Your task to perform on an android device: Open sound settings Image 0: 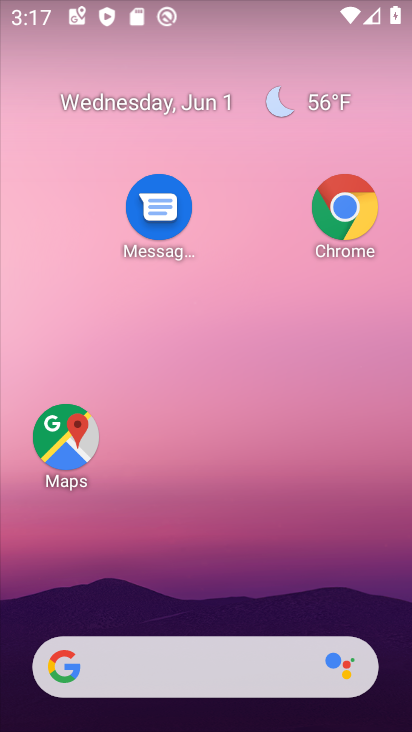
Step 0: drag from (216, 520) to (301, 2)
Your task to perform on an android device: Open sound settings Image 1: 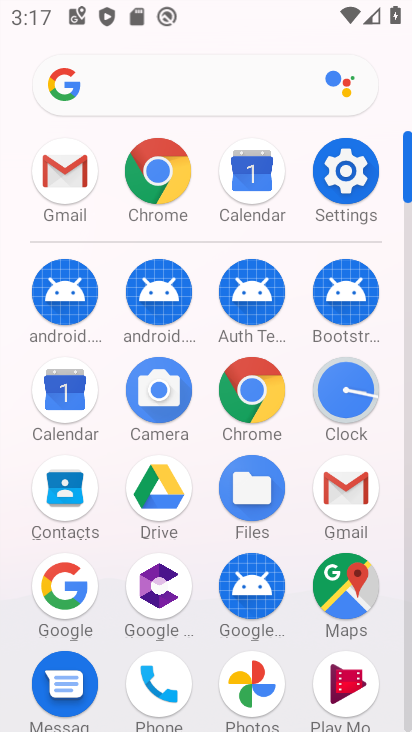
Step 1: click (352, 156)
Your task to perform on an android device: Open sound settings Image 2: 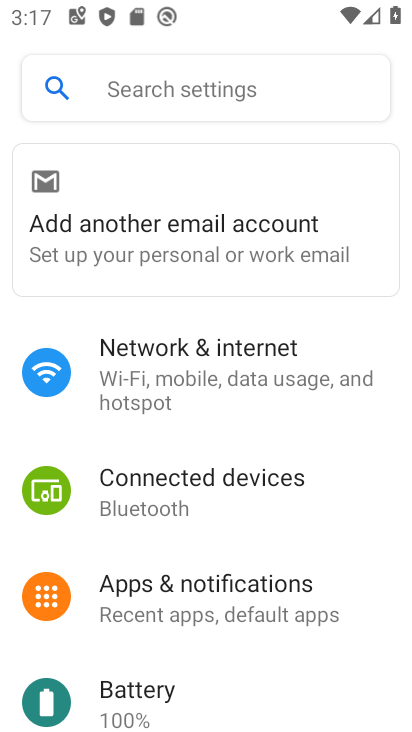
Step 2: drag from (173, 629) to (226, 136)
Your task to perform on an android device: Open sound settings Image 3: 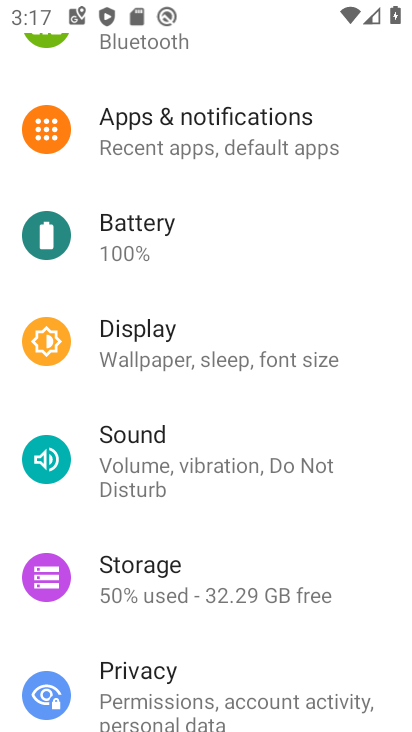
Step 3: click (148, 442)
Your task to perform on an android device: Open sound settings Image 4: 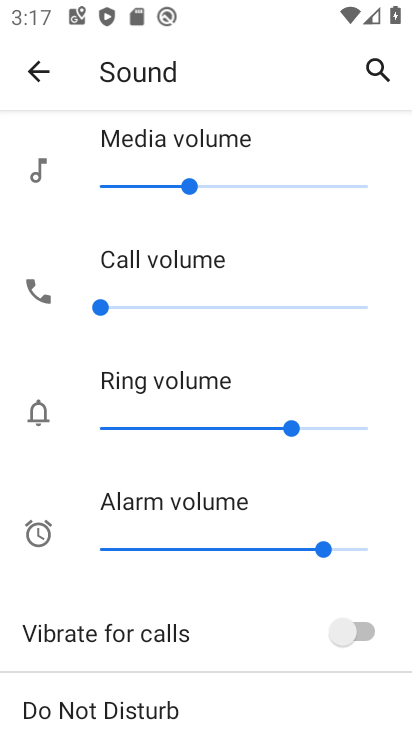
Step 4: task complete